Your task to perform on an android device: make emails show in primary in the gmail app Image 0: 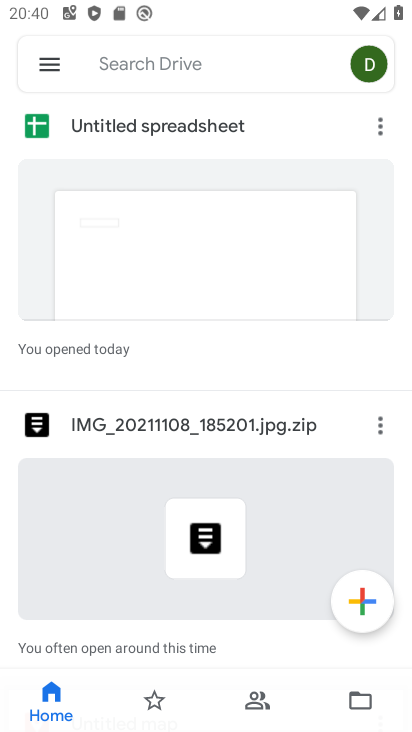
Step 0: press home button
Your task to perform on an android device: make emails show in primary in the gmail app Image 1: 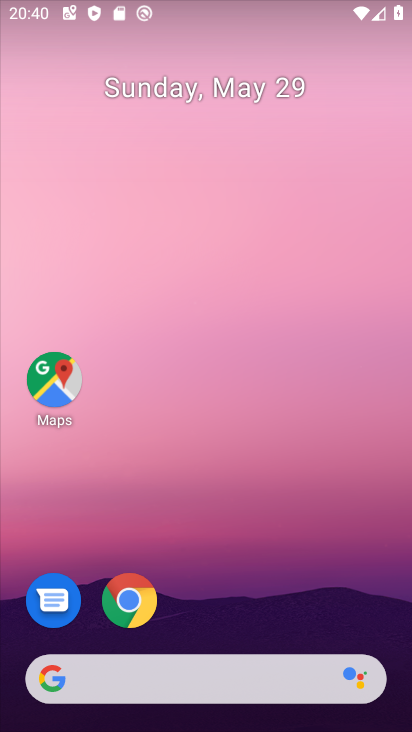
Step 1: drag from (331, 607) to (341, 177)
Your task to perform on an android device: make emails show in primary in the gmail app Image 2: 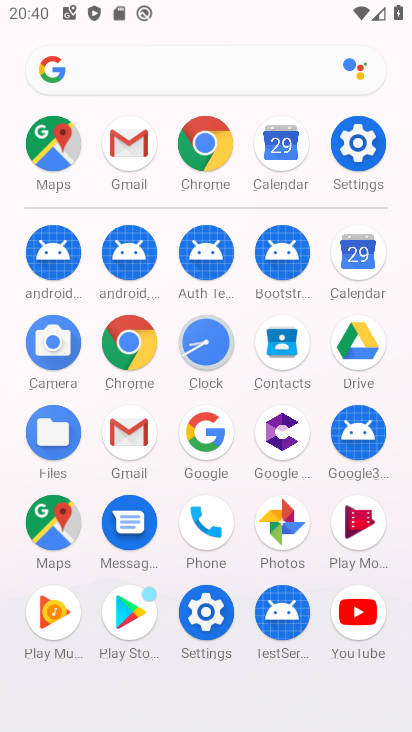
Step 2: click (133, 445)
Your task to perform on an android device: make emails show in primary in the gmail app Image 3: 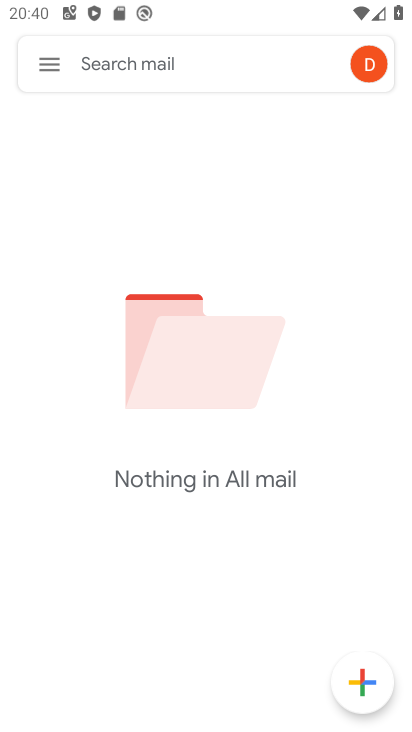
Step 3: click (62, 70)
Your task to perform on an android device: make emails show in primary in the gmail app Image 4: 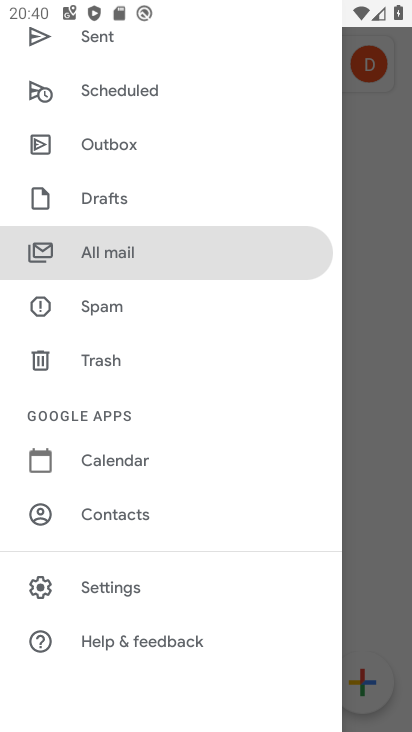
Step 4: click (198, 582)
Your task to perform on an android device: make emails show in primary in the gmail app Image 5: 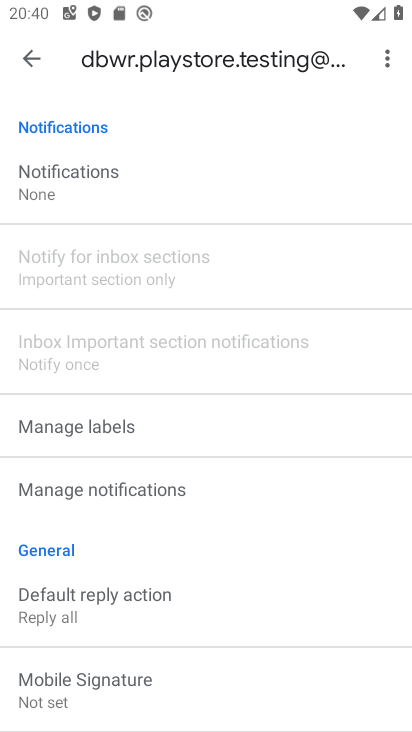
Step 5: task complete